Your task to perform on an android device: toggle data saver in the chrome app Image 0: 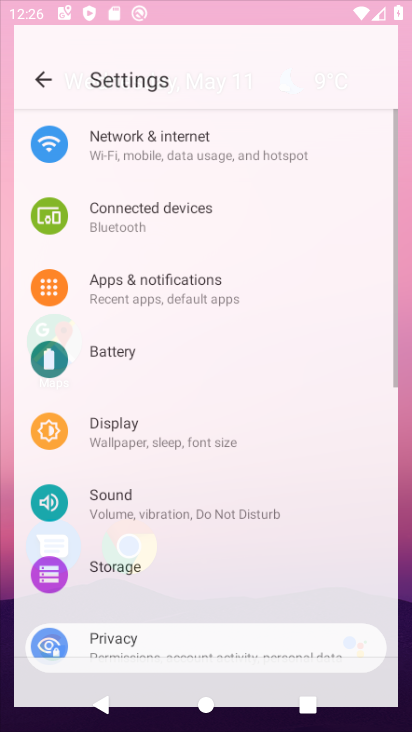
Step 0: drag from (301, 617) to (312, 129)
Your task to perform on an android device: toggle data saver in the chrome app Image 1: 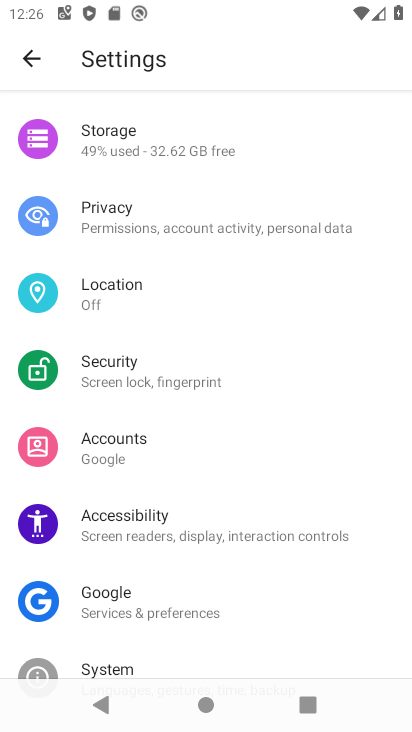
Step 1: press home button
Your task to perform on an android device: toggle data saver in the chrome app Image 2: 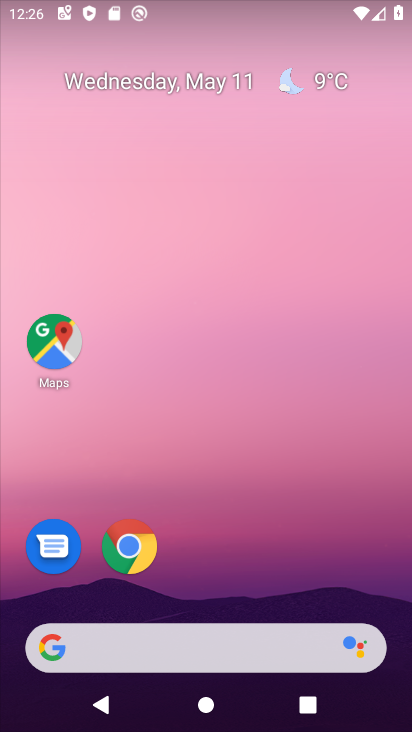
Step 2: drag from (386, 556) to (410, 357)
Your task to perform on an android device: toggle data saver in the chrome app Image 3: 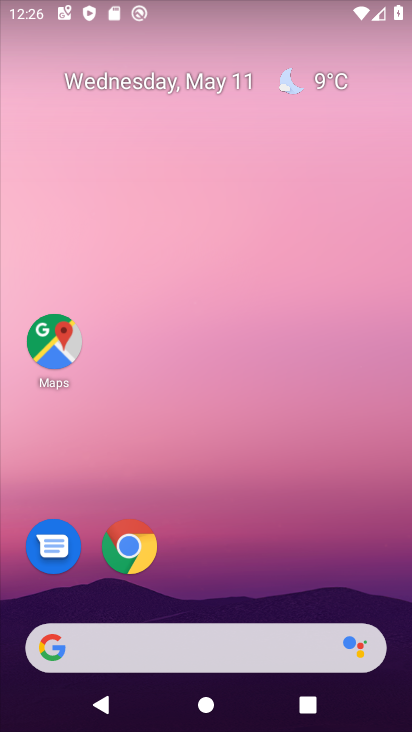
Step 3: drag from (359, 590) to (410, 221)
Your task to perform on an android device: toggle data saver in the chrome app Image 4: 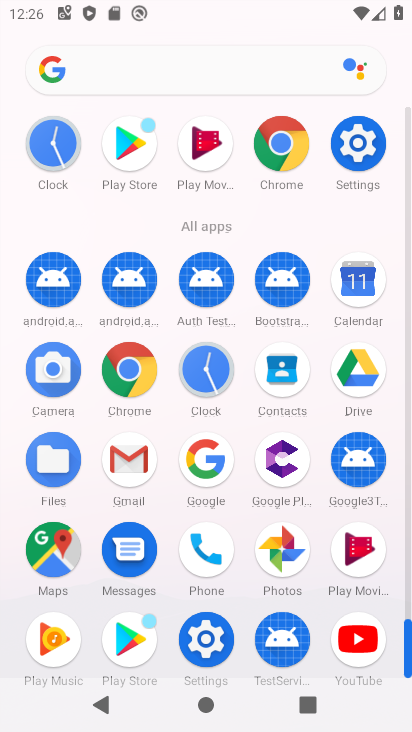
Step 4: drag from (261, 522) to (326, 278)
Your task to perform on an android device: toggle data saver in the chrome app Image 5: 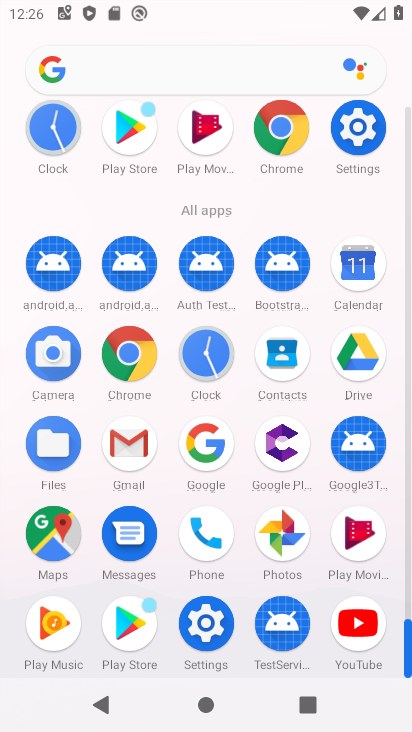
Step 5: click (123, 365)
Your task to perform on an android device: toggle data saver in the chrome app Image 6: 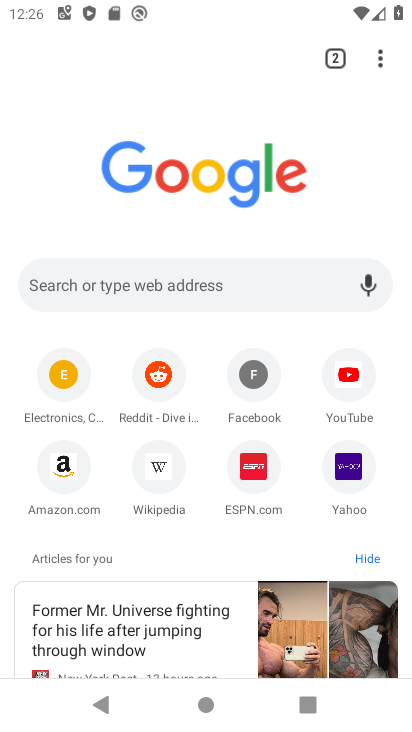
Step 6: drag from (381, 60) to (163, 505)
Your task to perform on an android device: toggle data saver in the chrome app Image 7: 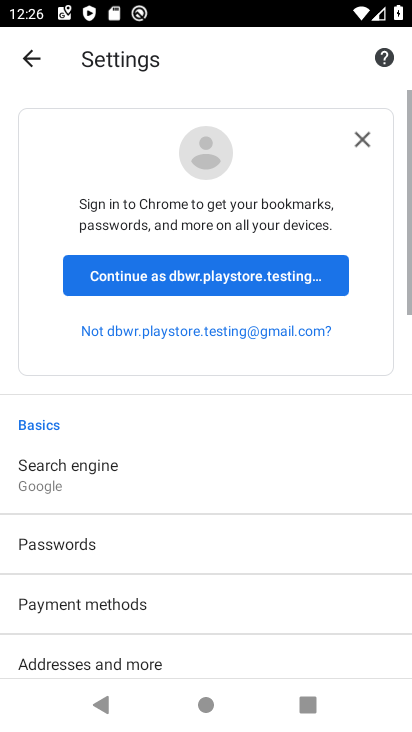
Step 7: drag from (223, 621) to (241, 113)
Your task to perform on an android device: toggle data saver in the chrome app Image 8: 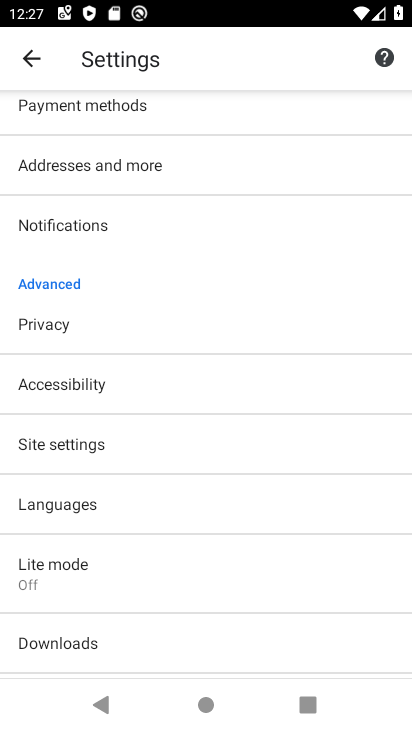
Step 8: click (75, 581)
Your task to perform on an android device: toggle data saver in the chrome app Image 9: 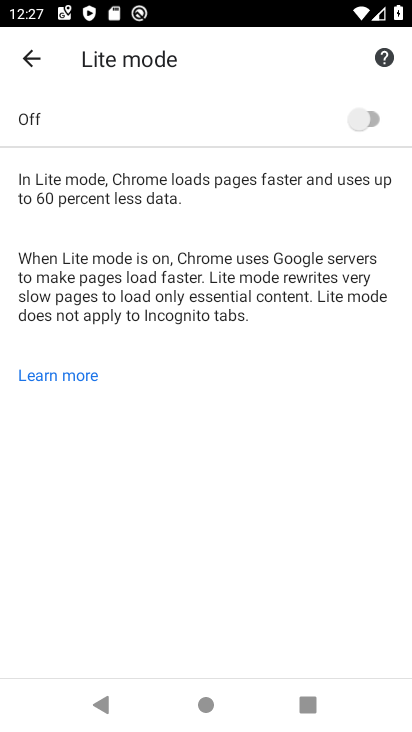
Step 9: click (367, 124)
Your task to perform on an android device: toggle data saver in the chrome app Image 10: 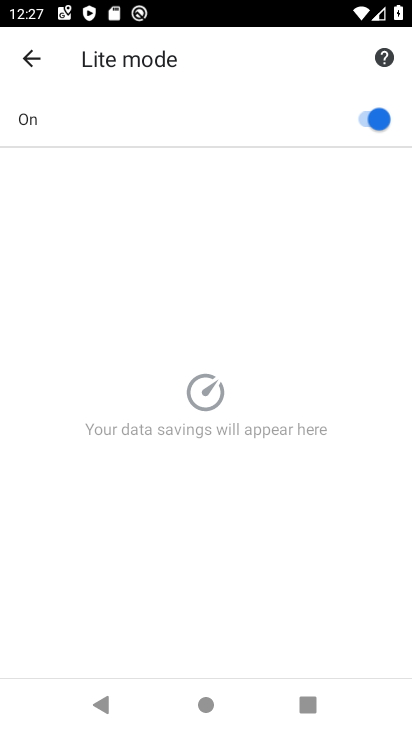
Step 10: task complete